Your task to perform on an android device: delete a single message in the gmail app Image 0: 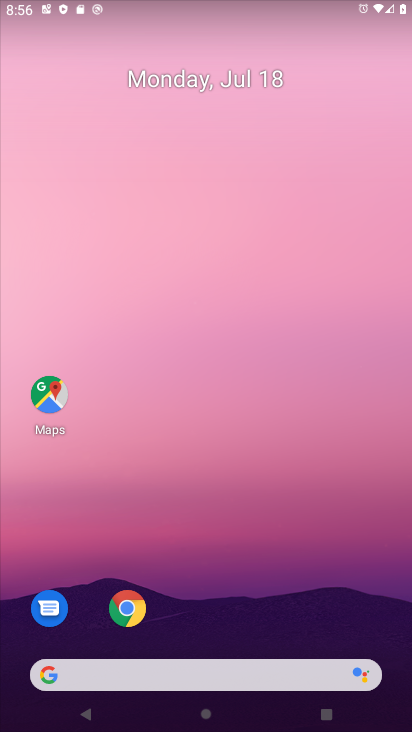
Step 0: drag from (225, 722) to (225, 224)
Your task to perform on an android device: delete a single message in the gmail app Image 1: 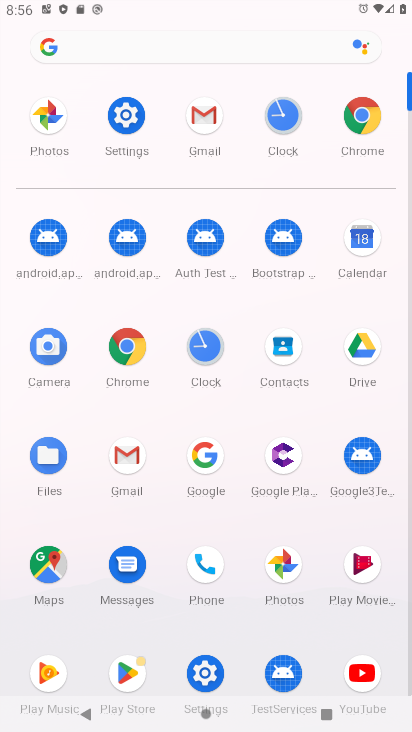
Step 1: click (134, 458)
Your task to perform on an android device: delete a single message in the gmail app Image 2: 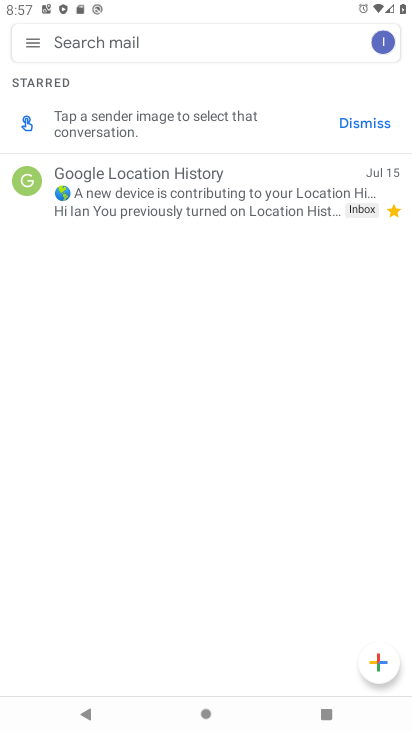
Step 2: click (191, 182)
Your task to perform on an android device: delete a single message in the gmail app Image 3: 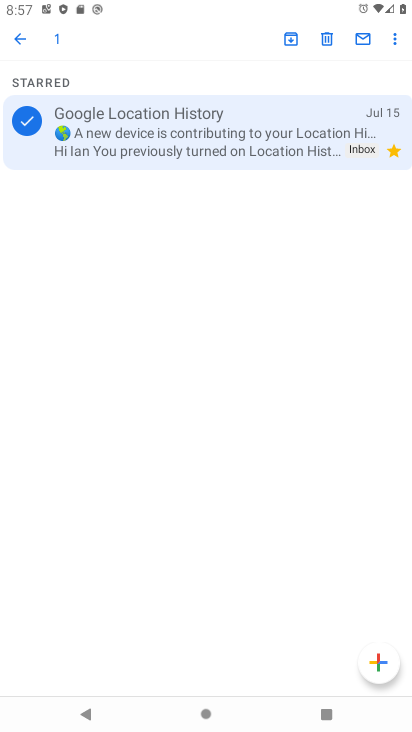
Step 3: click (322, 36)
Your task to perform on an android device: delete a single message in the gmail app Image 4: 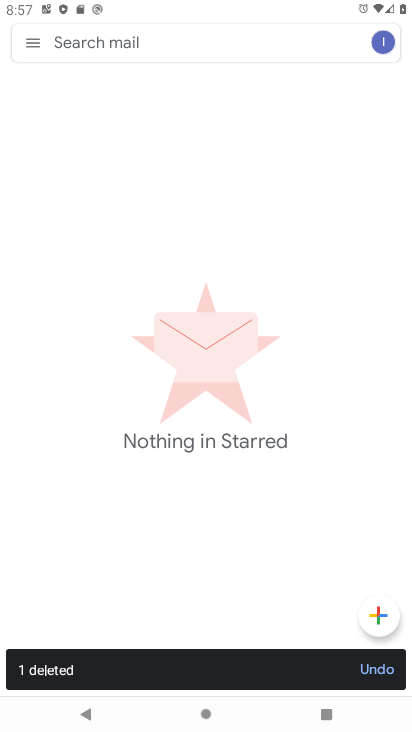
Step 4: task complete